Your task to perform on an android device: Open Google Maps and go to "Timeline" Image 0: 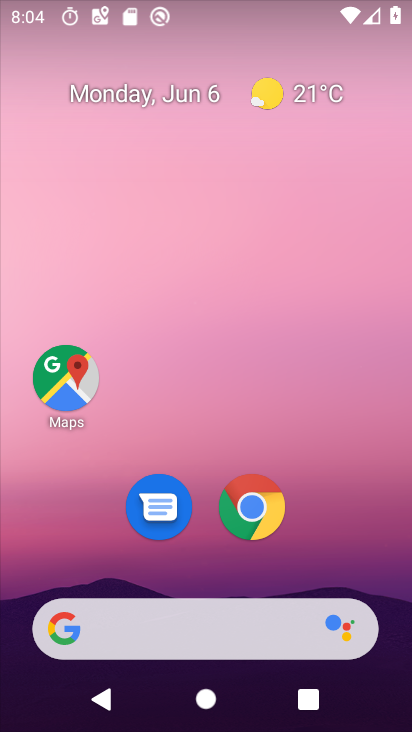
Step 0: click (90, 361)
Your task to perform on an android device: Open Google Maps and go to "Timeline" Image 1: 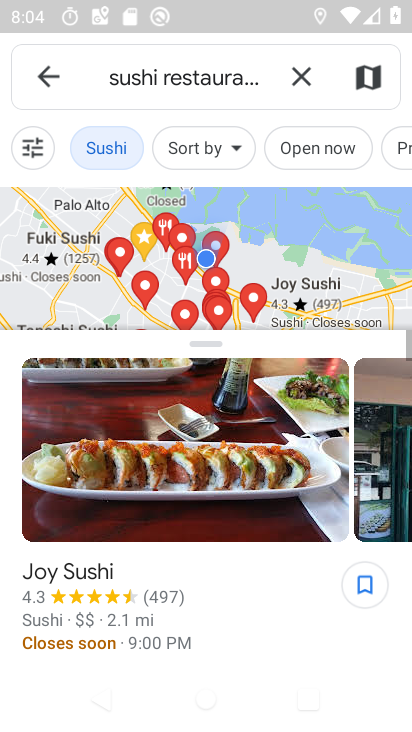
Step 1: click (48, 80)
Your task to perform on an android device: Open Google Maps and go to "Timeline" Image 2: 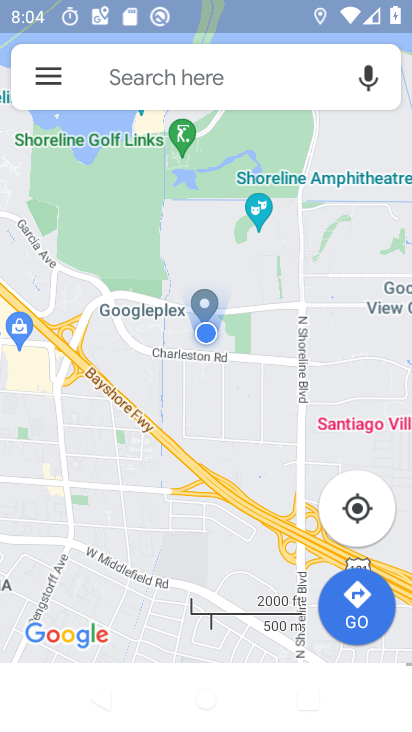
Step 2: click (48, 80)
Your task to perform on an android device: Open Google Maps and go to "Timeline" Image 3: 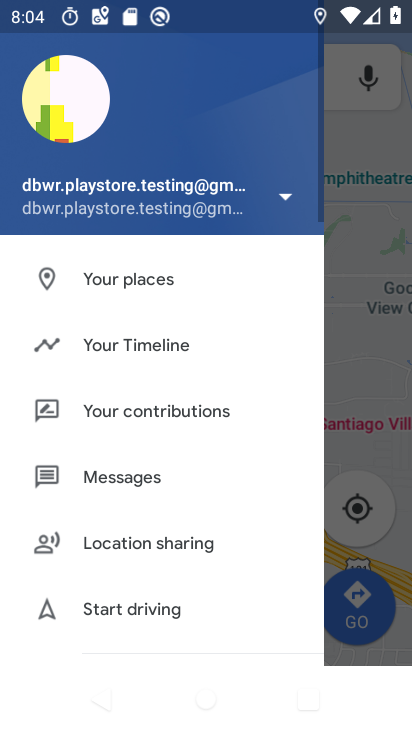
Step 3: click (188, 342)
Your task to perform on an android device: Open Google Maps and go to "Timeline" Image 4: 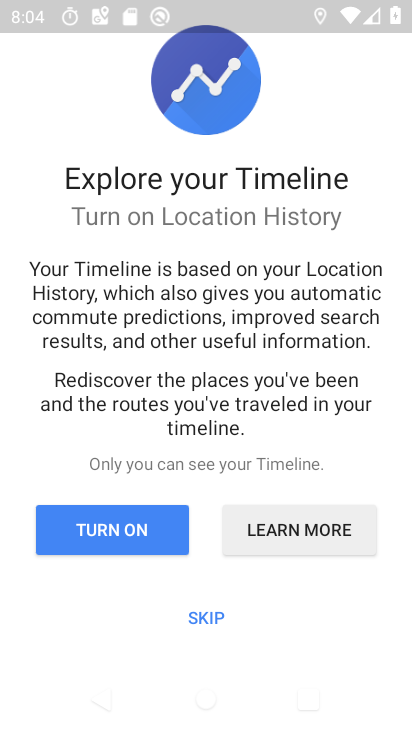
Step 4: click (223, 615)
Your task to perform on an android device: Open Google Maps and go to "Timeline" Image 5: 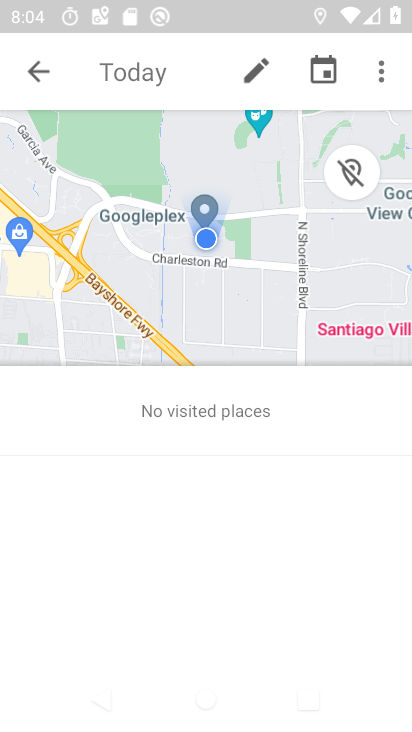
Step 5: task complete